Your task to perform on an android device: turn on bluetooth scan Image 0: 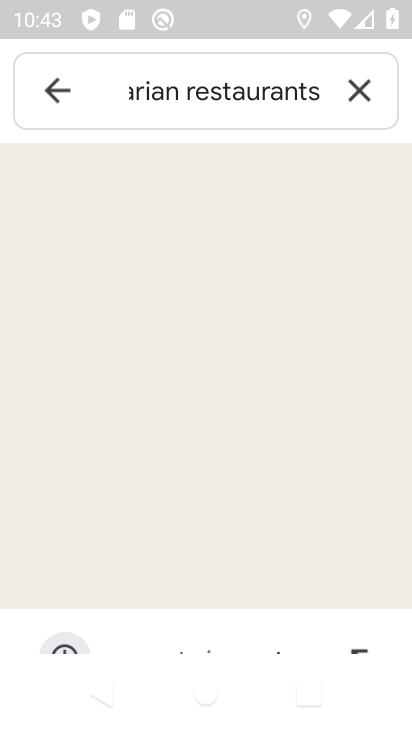
Step 0: press home button
Your task to perform on an android device: turn on bluetooth scan Image 1: 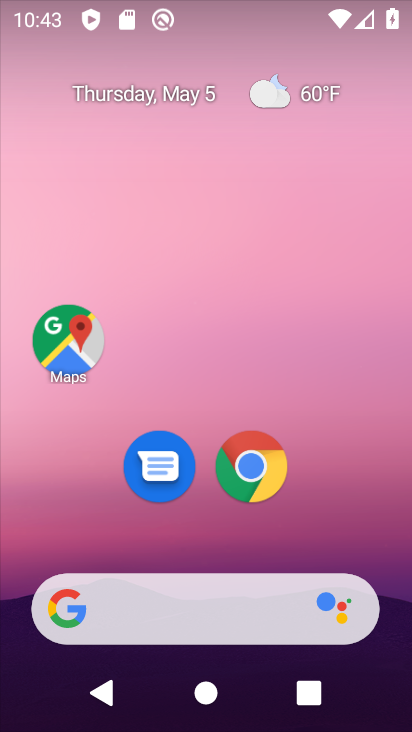
Step 1: drag from (175, 568) to (279, 235)
Your task to perform on an android device: turn on bluetooth scan Image 2: 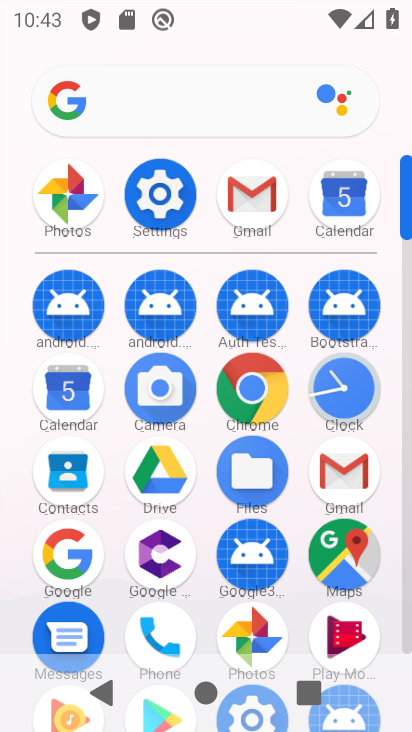
Step 2: click (163, 200)
Your task to perform on an android device: turn on bluetooth scan Image 3: 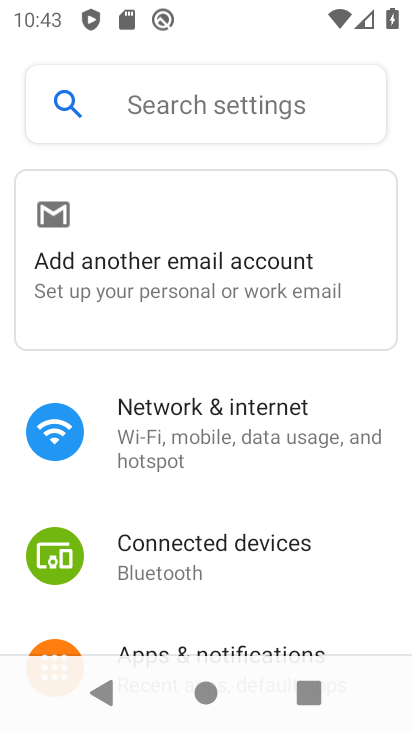
Step 3: drag from (167, 606) to (184, 346)
Your task to perform on an android device: turn on bluetooth scan Image 4: 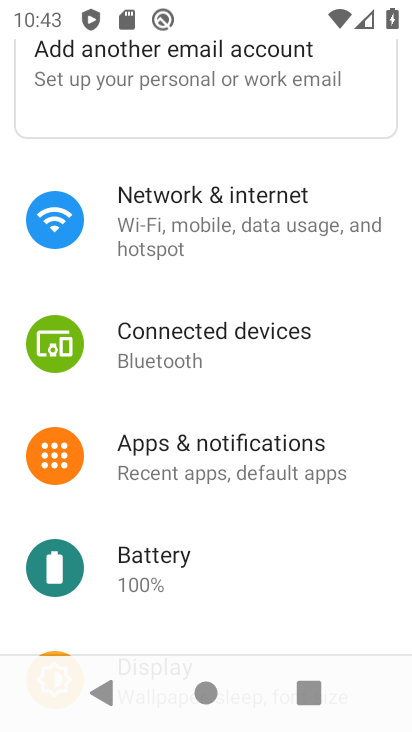
Step 4: drag from (181, 633) to (172, 340)
Your task to perform on an android device: turn on bluetooth scan Image 5: 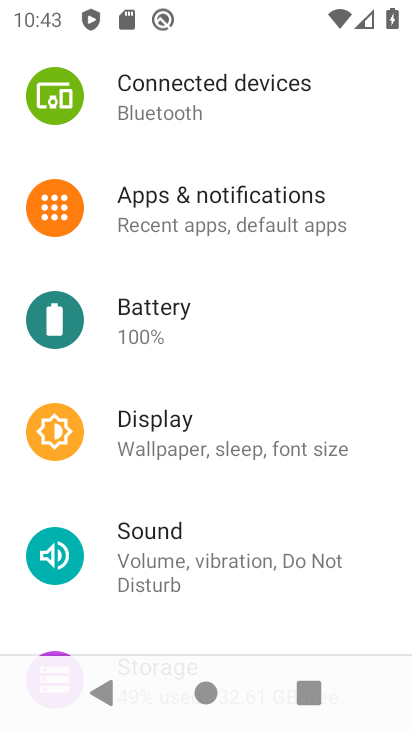
Step 5: drag from (157, 599) to (164, 297)
Your task to perform on an android device: turn on bluetooth scan Image 6: 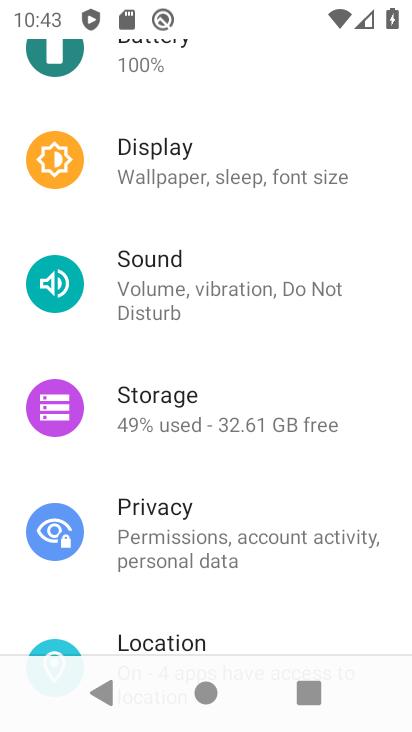
Step 6: drag from (154, 597) to (215, 350)
Your task to perform on an android device: turn on bluetooth scan Image 7: 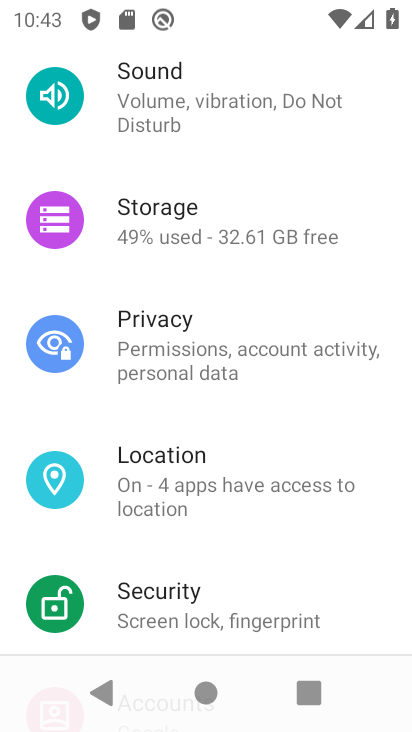
Step 7: click (147, 504)
Your task to perform on an android device: turn on bluetooth scan Image 8: 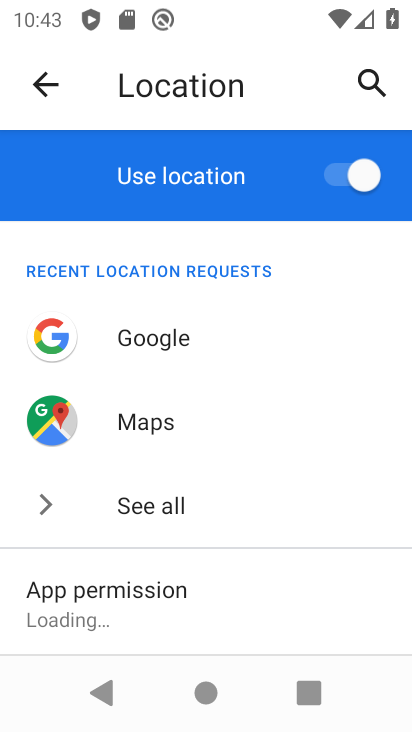
Step 8: drag from (203, 588) to (226, 390)
Your task to perform on an android device: turn on bluetooth scan Image 9: 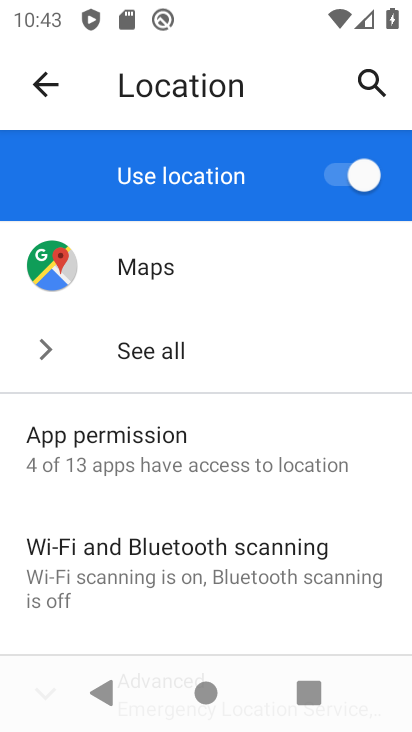
Step 9: click (126, 565)
Your task to perform on an android device: turn on bluetooth scan Image 10: 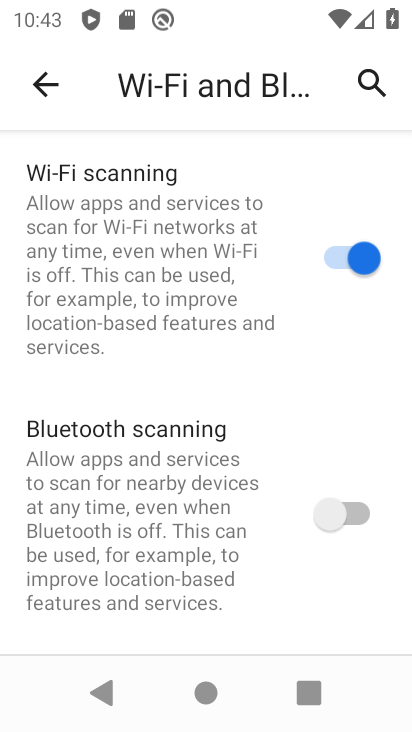
Step 10: click (352, 505)
Your task to perform on an android device: turn on bluetooth scan Image 11: 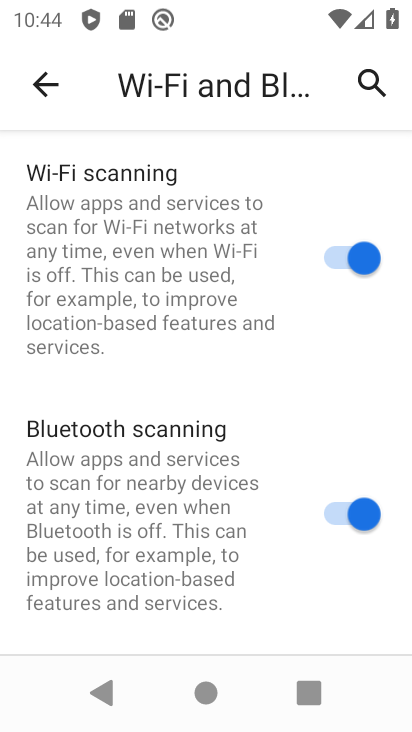
Step 11: task complete